Your task to perform on an android device: Go to internet settings Image 0: 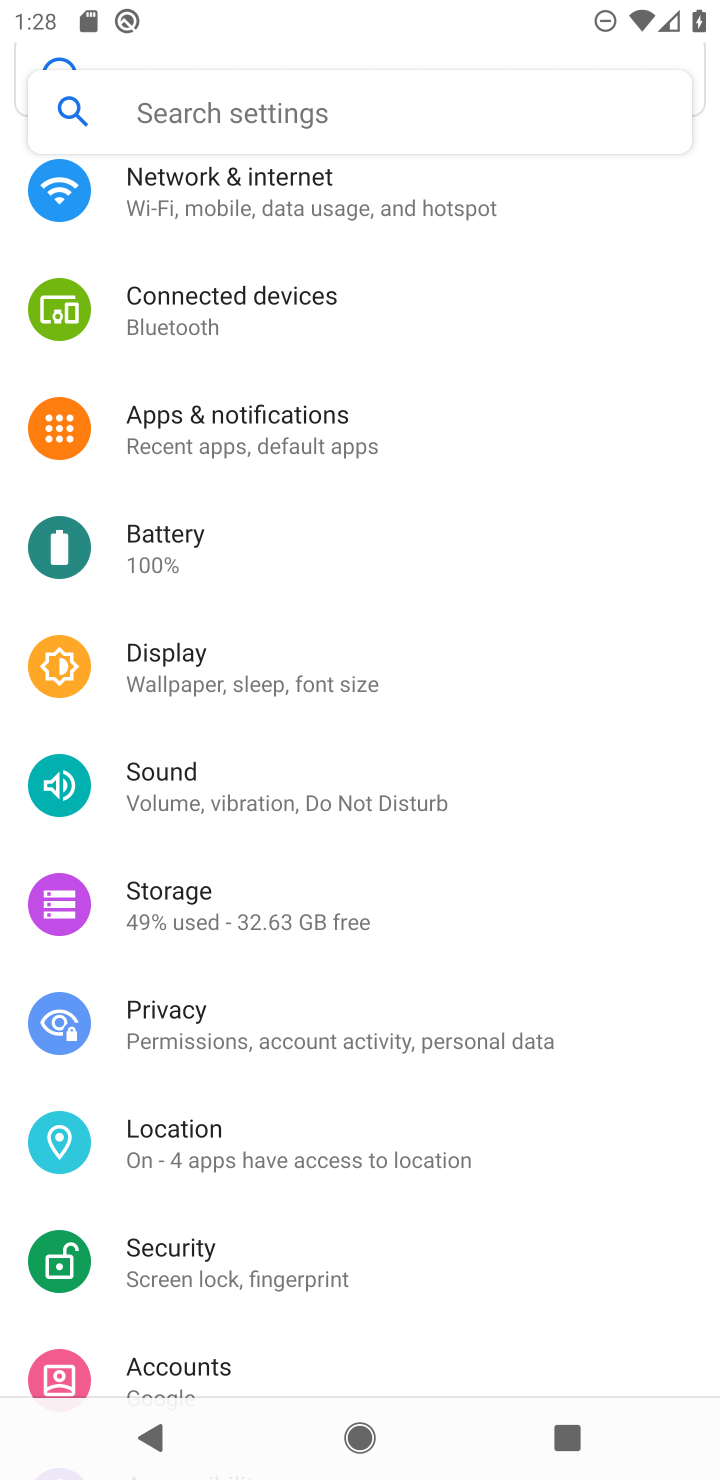
Step 0: click (231, 179)
Your task to perform on an android device: Go to internet settings Image 1: 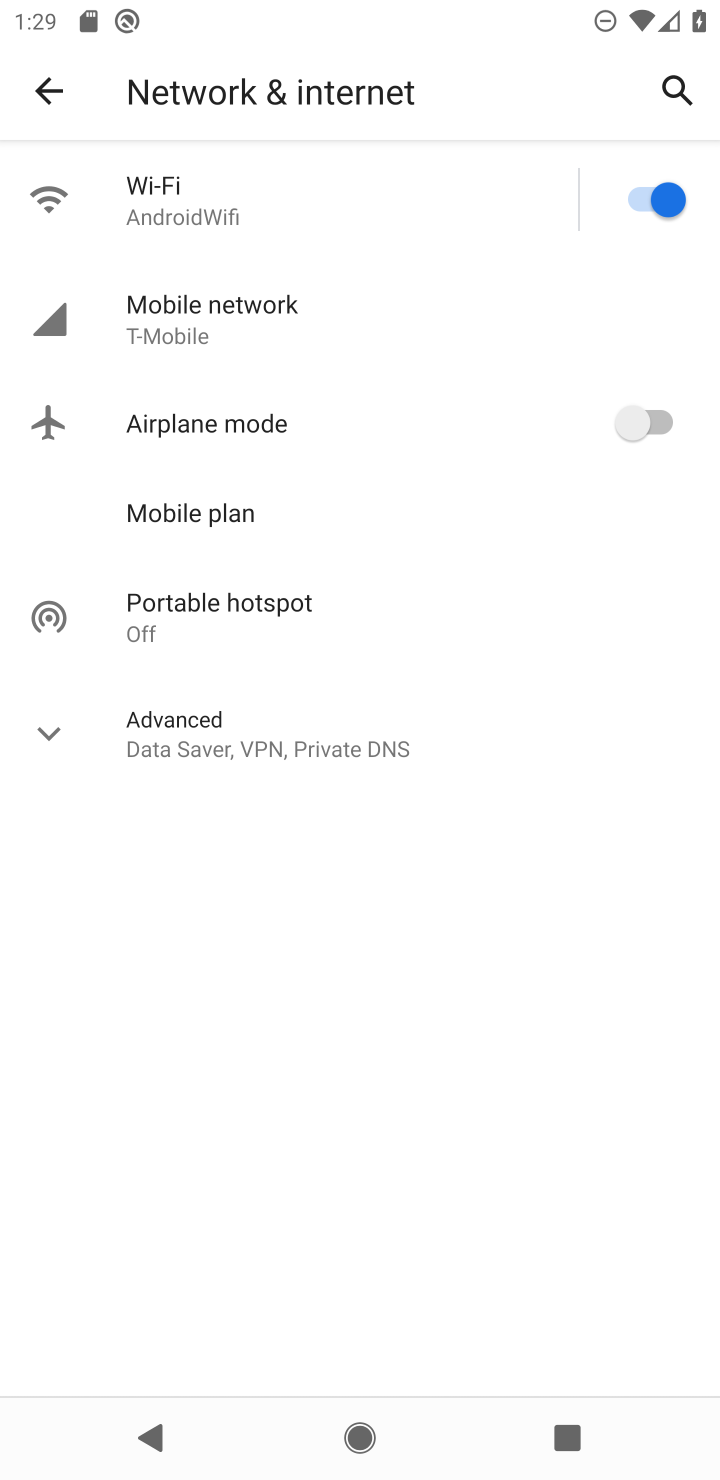
Step 1: task complete